Your task to perform on an android device: turn off smart reply in the gmail app Image 0: 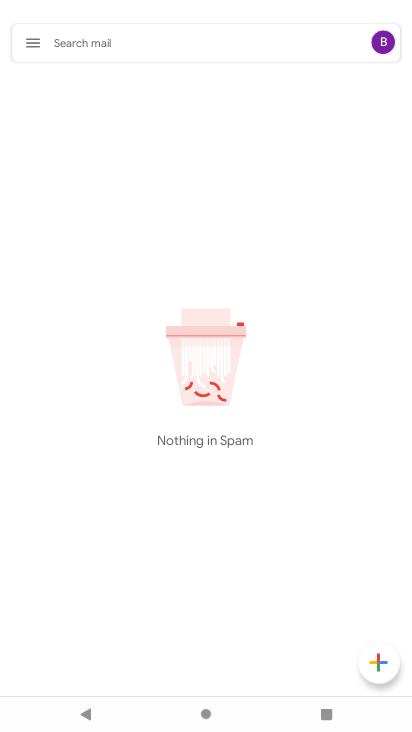
Step 0: press back button
Your task to perform on an android device: turn off smart reply in the gmail app Image 1: 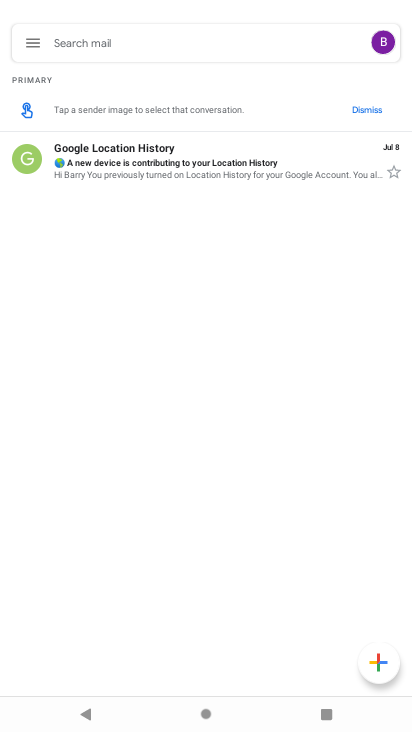
Step 1: press home button
Your task to perform on an android device: turn off smart reply in the gmail app Image 2: 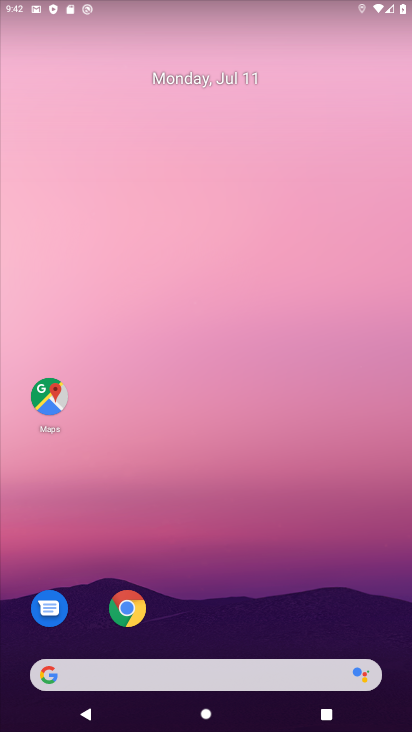
Step 2: drag from (213, 423) to (199, 329)
Your task to perform on an android device: turn off smart reply in the gmail app Image 3: 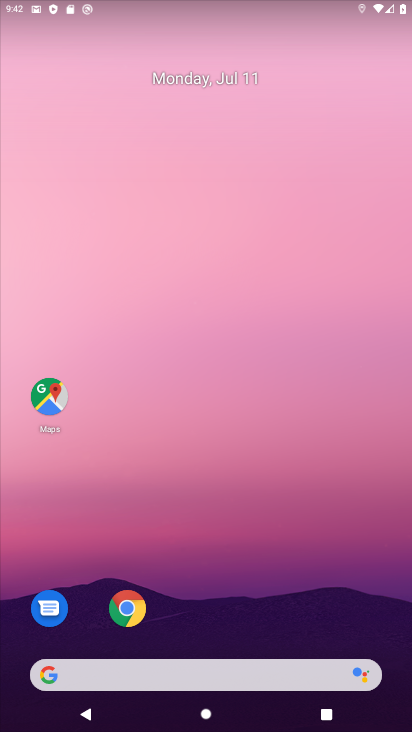
Step 3: drag from (247, 687) to (360, 128)
Your task to perform on an android device: turn off smart reply in the gmail app Image 4: 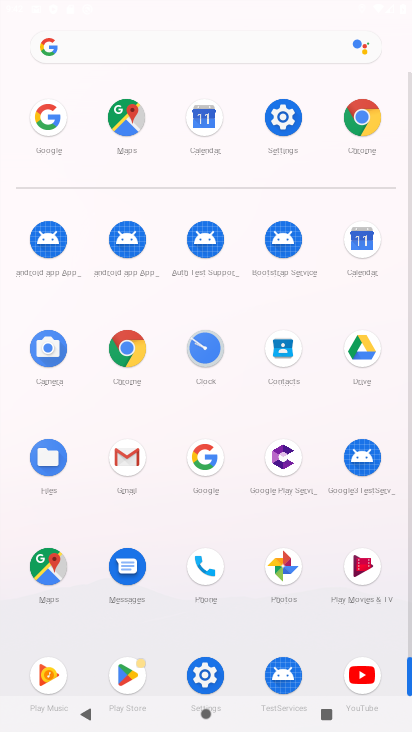
Step 4: click (116, 447)
Your task to perform on an android device: turn off smart reply in the gmail app Image 5: 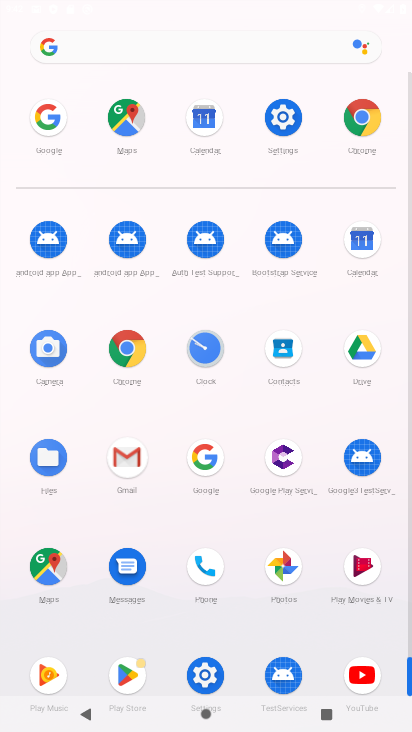
Step 5: click (121, 450)
Your task to perform on an android device: turn off smart reply in the gmail app Image 6: 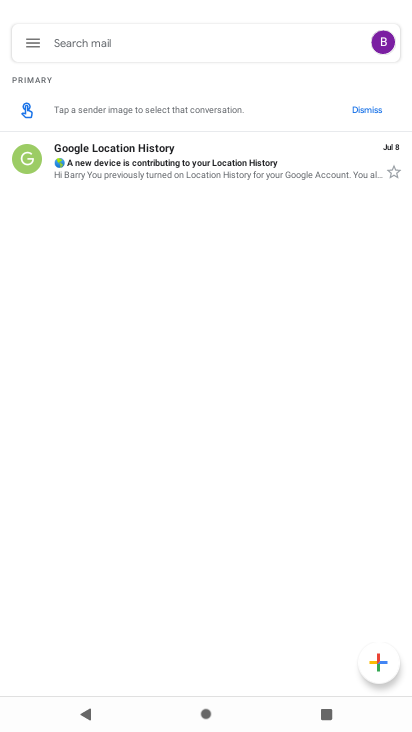
Step 6: click (123, 451)
Your task to perform on an android device: turn off smart reply in the gmail app Image 7: 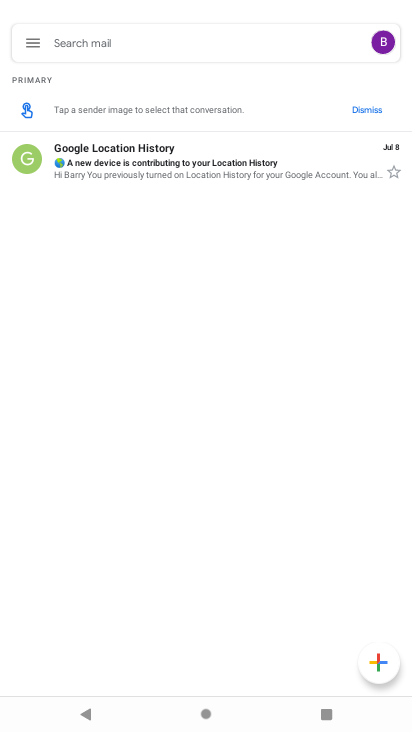
Step 7: click (25, 37)
Your task to perform on an android device: turn off smart reply in the gmail app Image 8: 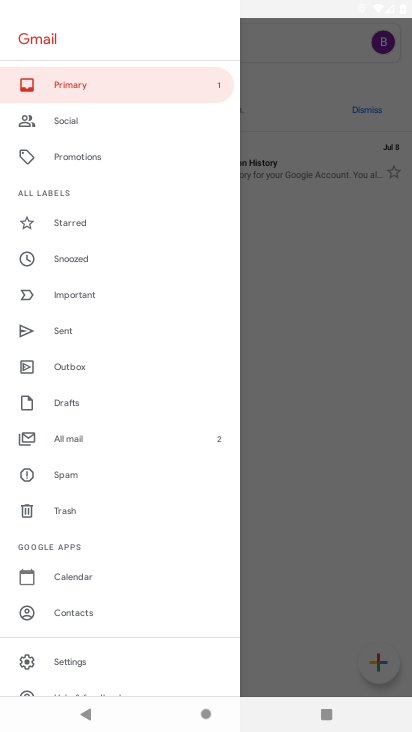
Step 8: drag from (61, 609) to (30, 218)
Your task to perform on an android device: turn off smart reply in the gmail app Image 9: 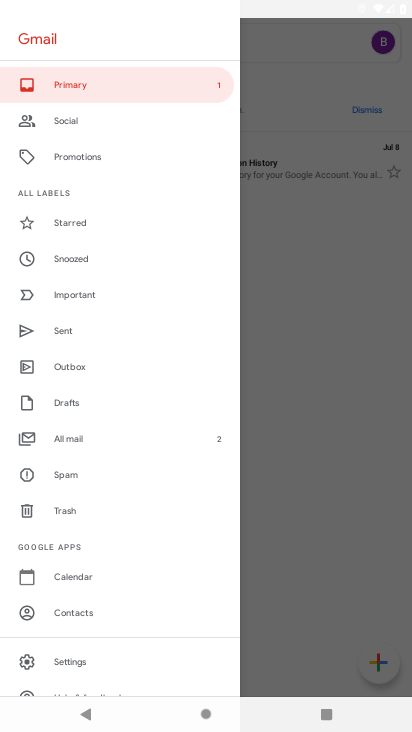
Step 9: click (75, 658)
Your task to perform on an android device: turn off smart reply in the gmail app Image 10: 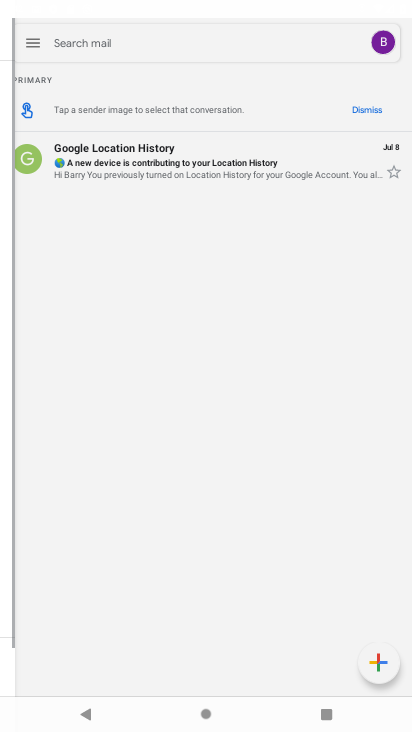
Step 10: click (73, 657)
Your task to perform on an android device: turn off smart reply in the gmail app Image 11: 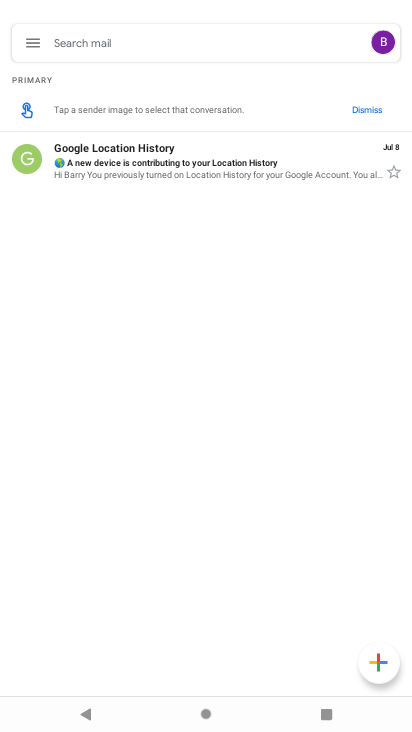
Step 11: click (73, 657)
Your task to perform on an android device: turn off smart reply in the gmail app Image 12: 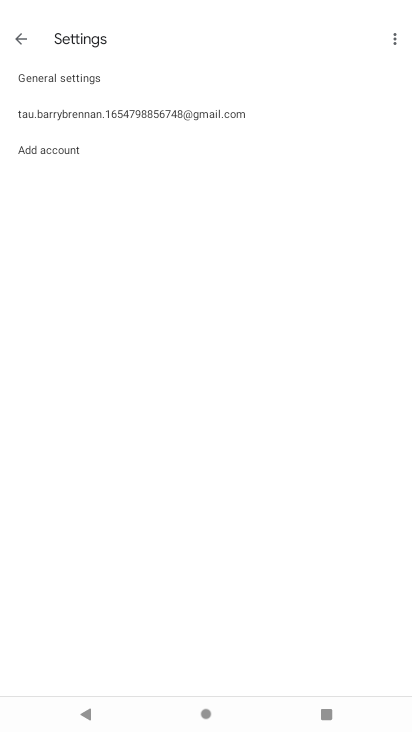
Step 12: click (105, 116)
Your task to perform on an android device: turn off smart reply in the gmail app Image 13: 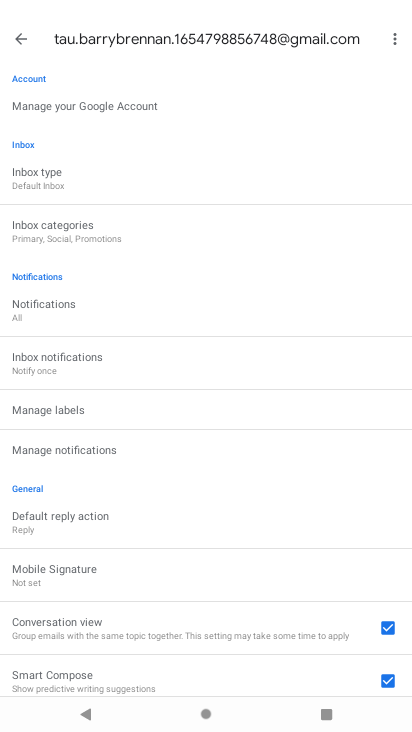
Step 13: drag from (118, 362) to (103, 94)
Your task to perform on an android device: turn off smart reply in the gmail app Image 14: 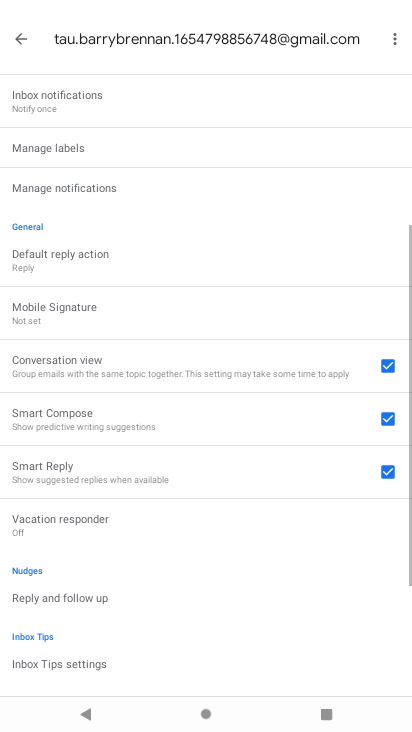
Step 14: drag from (144, 482) to (133, 192)
Your task to perform on an android device: turn off smart reply in the gmail app Image 15: 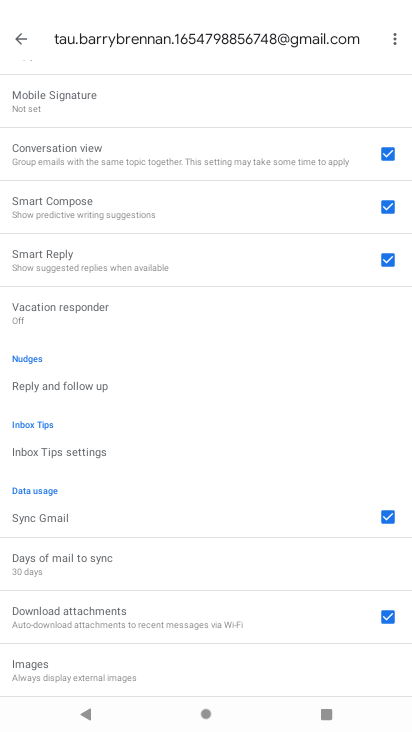
Step 15: click (91, 258)
Your task to perform on an android device: turn off smart reply in the gmail app Image 16: 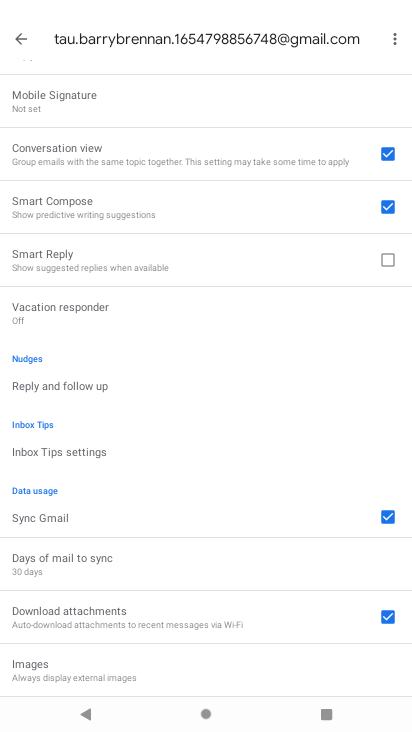
Step 16: task complete